Your task to perform on an android device: turn on the 24-hour format for clock Image 0: 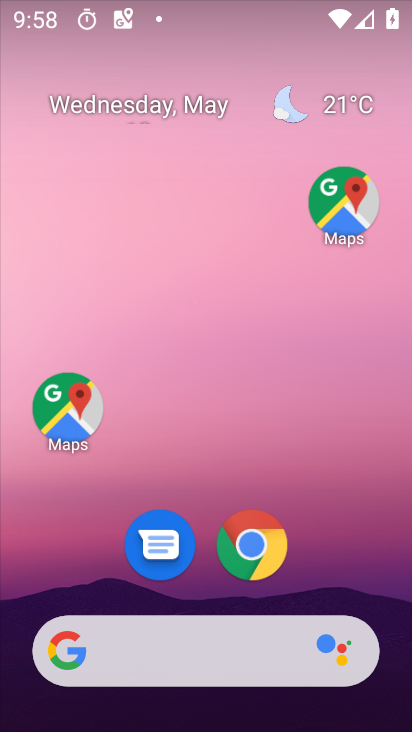
Step 0: drag from (322, 590) to (226, 194)
Your task to perform on an android device: turn on the 24-hour format for clock Image 1: 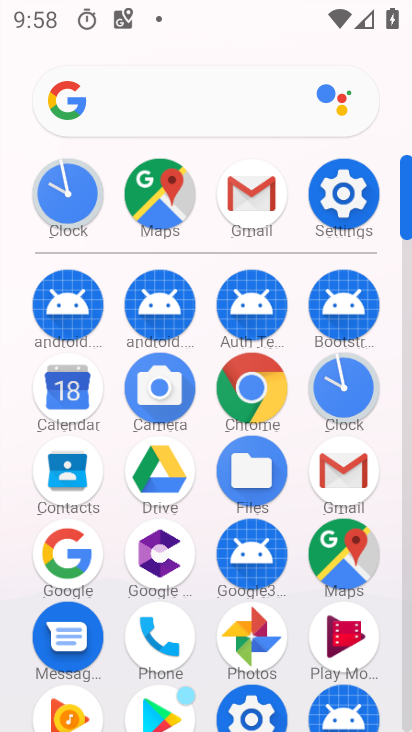
Step 1: click (343, 380)
Your task to perform on an android device: turn on the 24-hour format for clock Image 2: 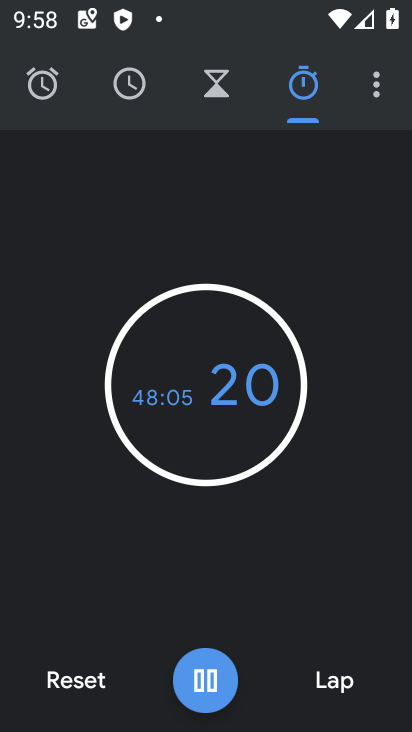
Step 2: click (364, 88)
Your task to perform on an android device: turn on the 24-hour format for clock Image 3: 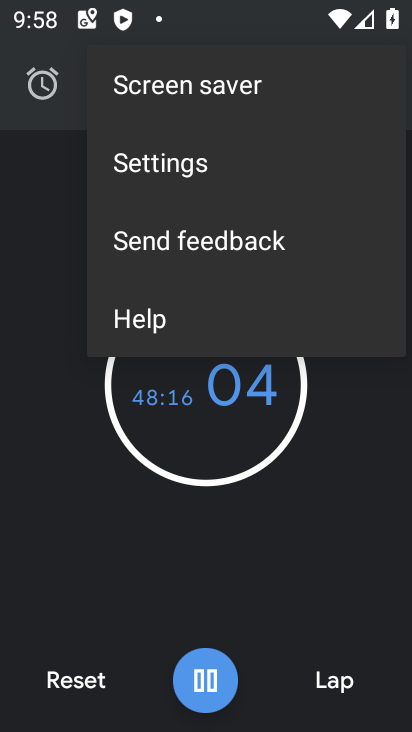
Step 3: click (199, 181)
Your task to perform on an android device: turn on the 24-hour format for clock Image 4: 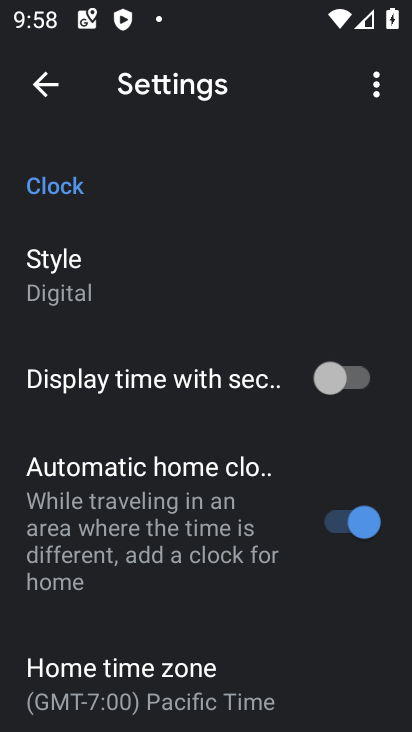
Step 4: drag from (127, 567) to (148, 190)
Your task to perform on an android device: turn on the 24-hour format for clock Image 5: 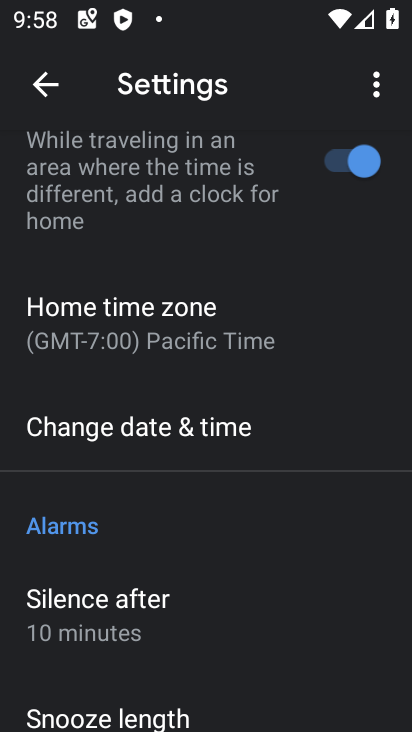
Step 5: click (122, 422)
Your task to perform on an android device: turn on the 24-hour format for clock Image 6: 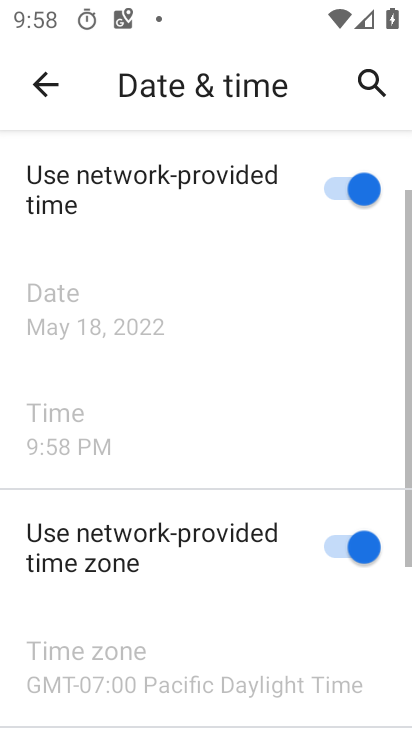
Step 6: drag from (172, 620) to (191, 208)
Your task to perform on an android device: turn on the 24-hour format for clock Image 7: 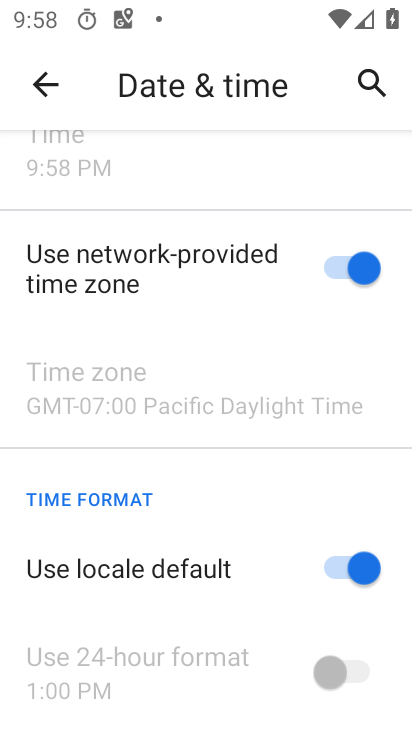
Step 7: drag from (179, 629) to (188, 273)
Your task to perform on an android device: turn on the 24-hour format for clock Image 8: 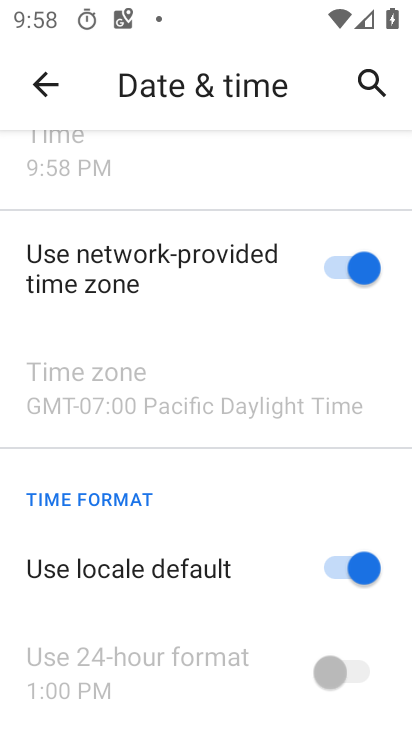
Step 8: click (321, 575)
Your task to perform on an android device: turn on the 24-hour format for clock Image 9: 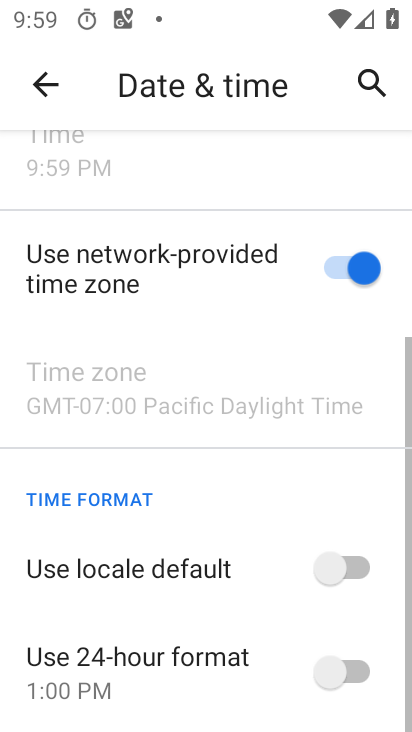
Step 9: click (326, 679)
Your task to perform on an android device: turn on the 24-hour format for clock Image 10: 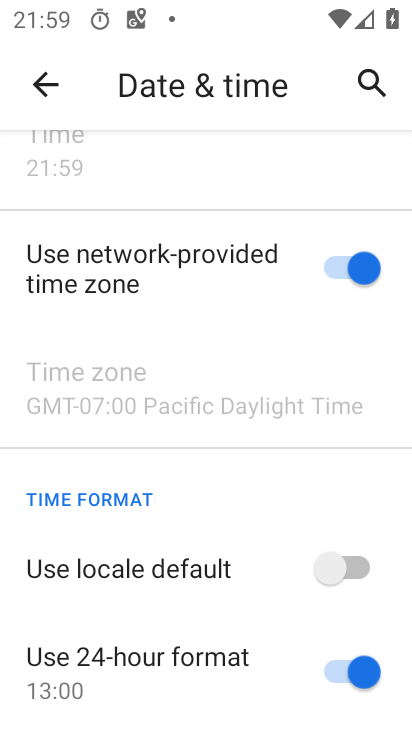
Step 10: task complete